Your task to perform on an android device: turn off notifications in google photos Image 0: 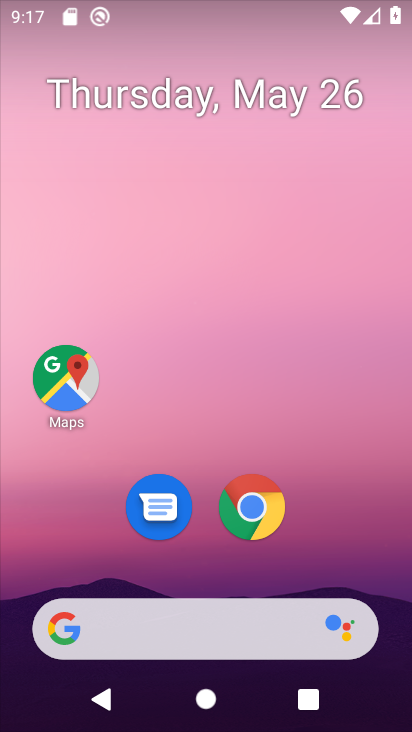
Step 0: drag from (370, 537) to (349, 154)
Your task to perform on an android device: turn off notifications in google photos Image 1: 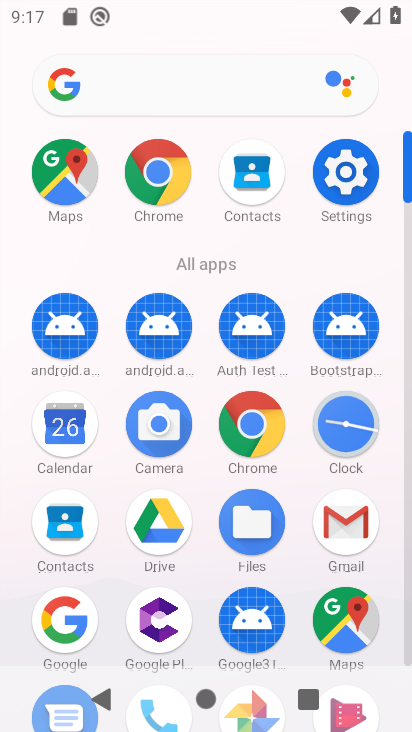
Step 1: drag from (296, 587) to (297, 278)
Your task to perform on an android device: turn off notifications in google photos Image 2: 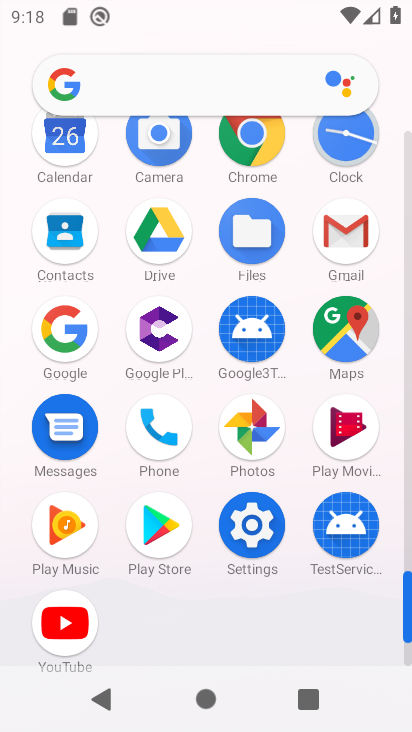
Step 2: click (258, 443)
Your task to perform on an android device: turn off notifications in google photos Image 3: 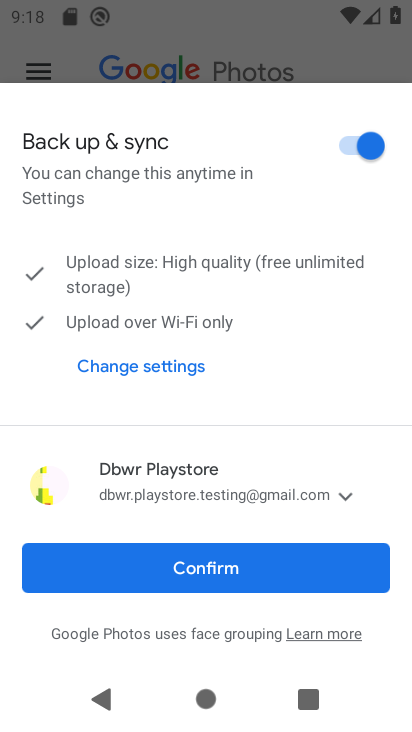
Step 3: click (214, 569)
Your task to perform on an android device: turn off notifications in google photos Image 4: 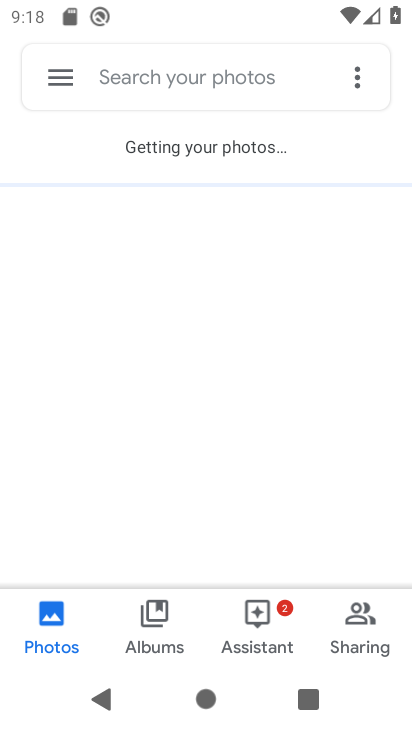
Step 4: click (59, 76)
Your task to perform on an android device: turn off notifications in google photos Image 5: 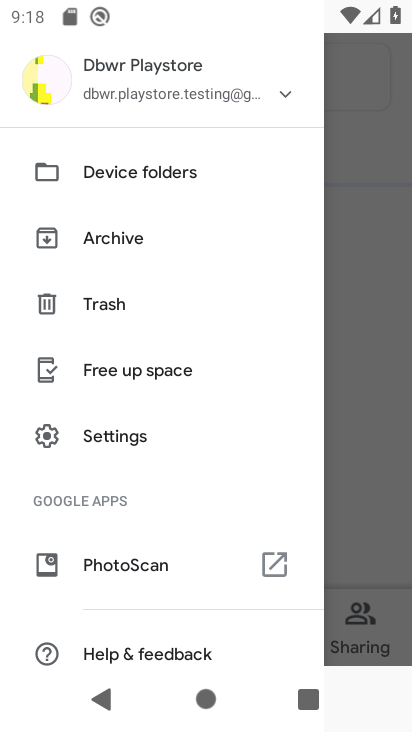
Step 5: click (155, 443)
Your task to perform on an android device: turn off notifications in google photos Image 6: 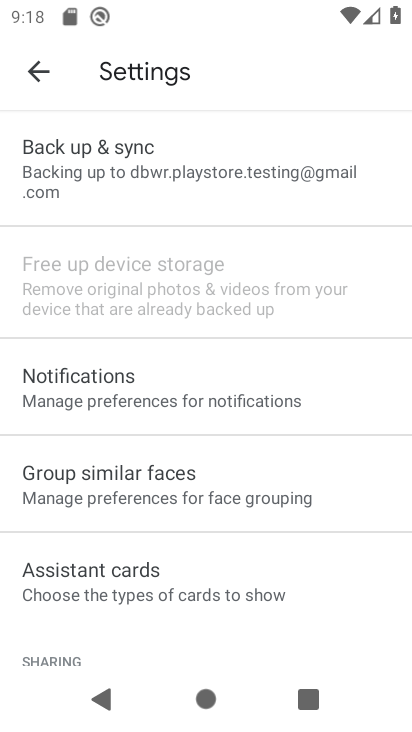
Step 6: drag from (349, 544) to (360, 434)
Your task to perform on an android device: turn off notifications in google photos Image 7: 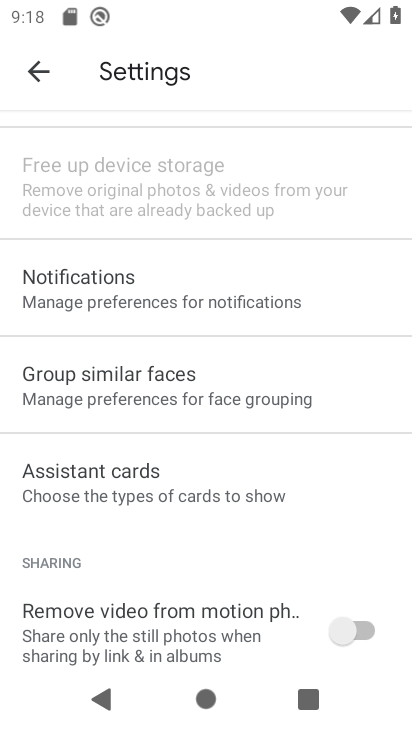
Step 7: drag from (349, 548) to (358, 423)
Your task to perform on an android device: turn off notifications in google photos Image 8: 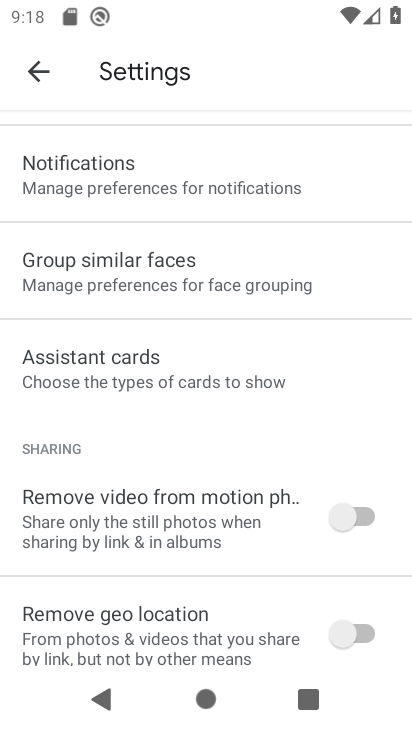
Step 8: click (253, 180)
Your task to perform on an android device: turn off notifications in google photos Image 9: 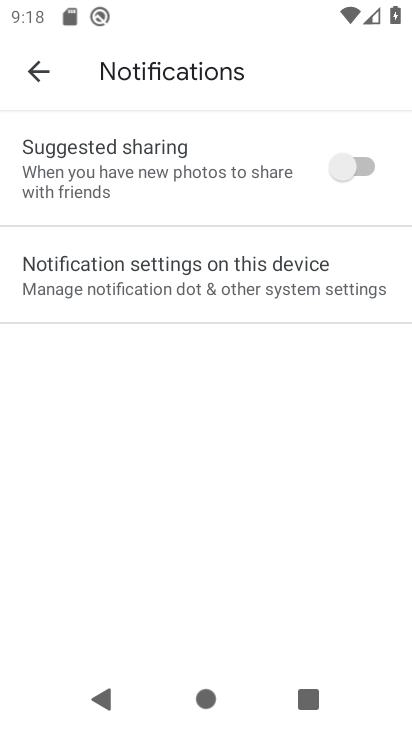
Step 9: click (196, 285)
Your task to perform on an android device: turn off notifications in google photos Image 10: 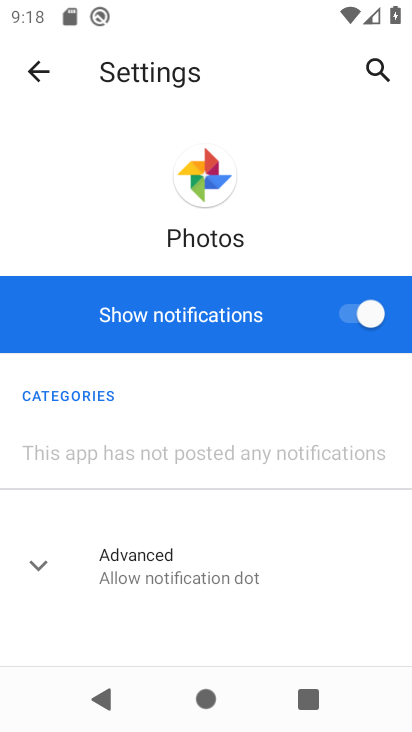
Step 10: click (381, 323)
Your task to perform on an android device: turn off notifications in google photos Image 11: 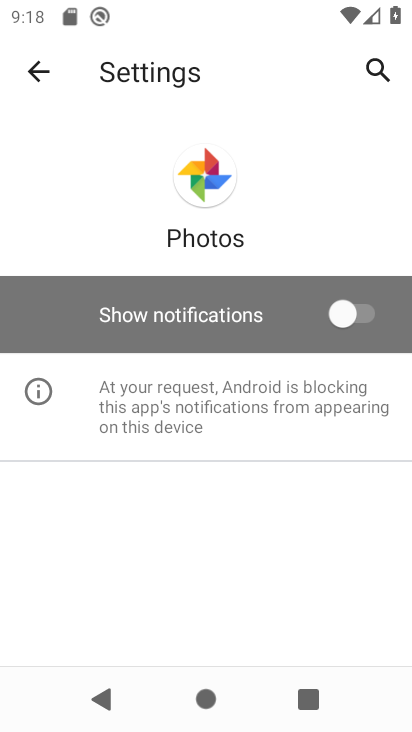
Step 11: task complete